Your task to perform on an android device: Open the Play Movies app and select the watchlist tab. Image 0: 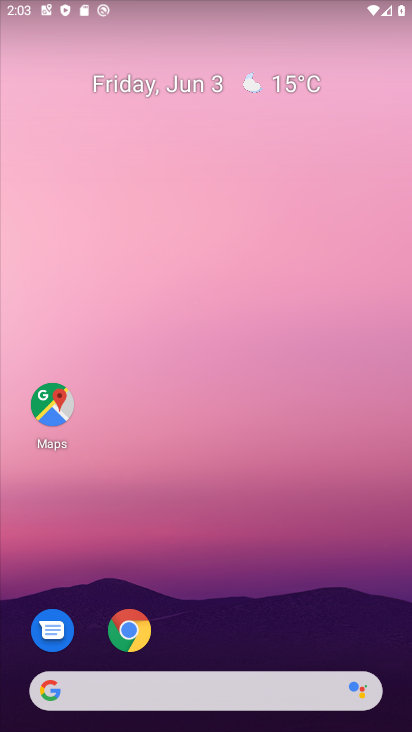
Step 0: drag from (215, 528) to (186, 50)
Your task to perform on an android device: Open the Play Movies app and select the watchlist tab. Image 1: 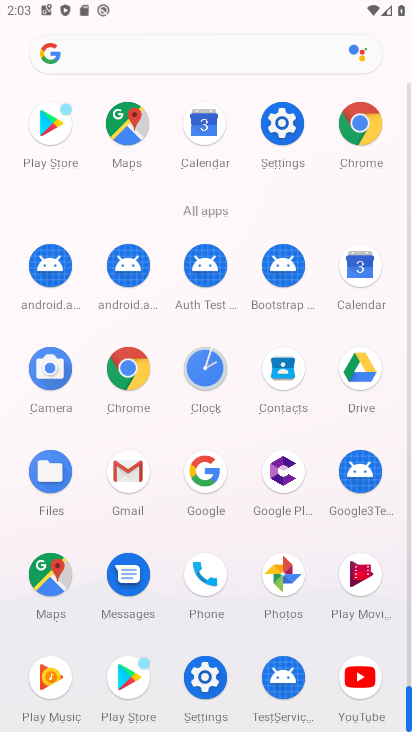
Step 1: drag from (14, 499) to (24, 156)
Your task to perform on an android device: Open the Play Movies app and select the watchlist tab. Image 2: 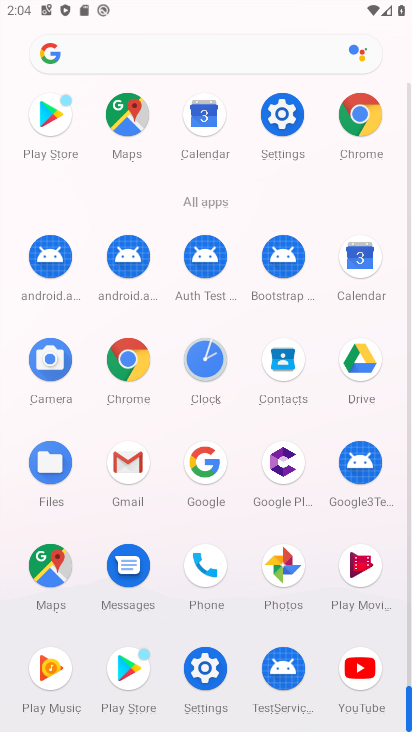
Step 2: drag from (15, 534) to (36, 256)
Your task to perform on an android device: Open the Play Movies app and select the watchlist tab. Image 3: 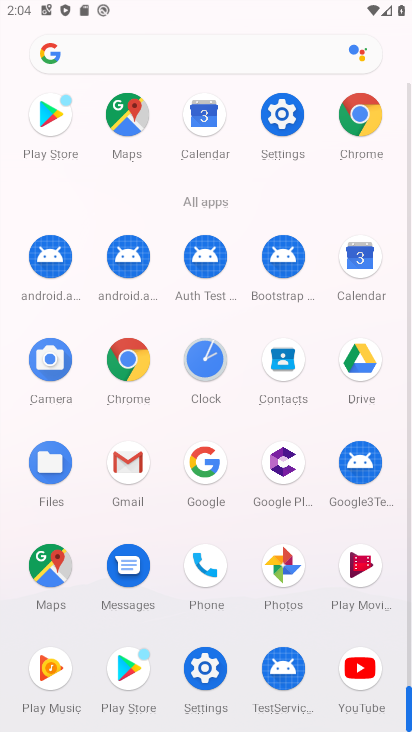
Step 3: drag from (8, 544) to (28, 228)
Your task to perform on an android device: Open the Play Movies app and select the watchlist tab. Image 4: 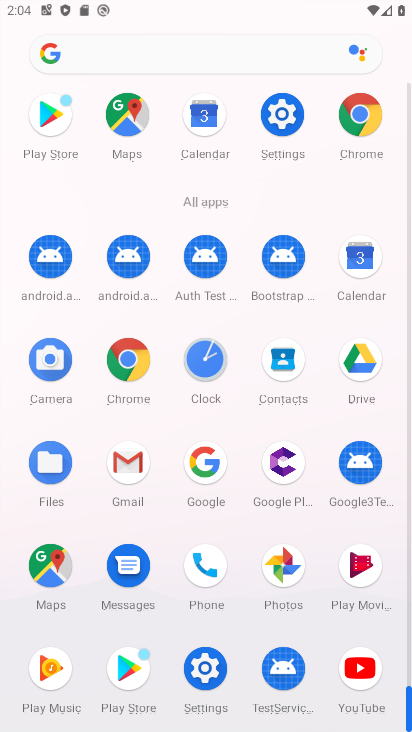
Step 4: click (358, 563)
Your task to perform on an android device: Open the Play Movies app and select the watchlist tab. Image 5: 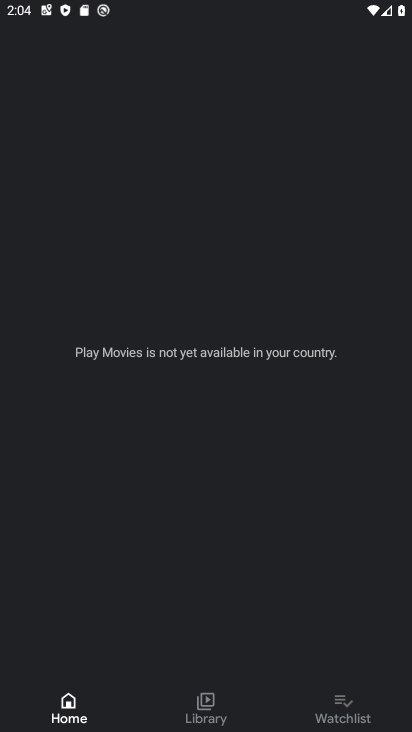
Step 5: click (340, 707)
Your task to perform on an android device: Open the Play Movies app and select the watchlist tab. Image 6: 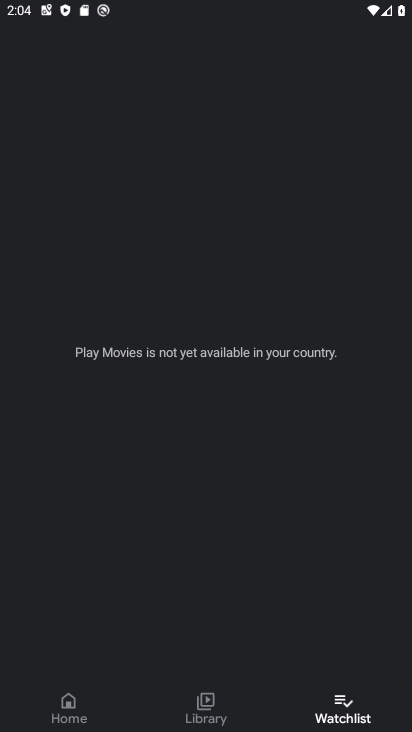
Step 6: task complete